Your task to perform on an android device: Open the calendar and show me this week's events? Image 0: 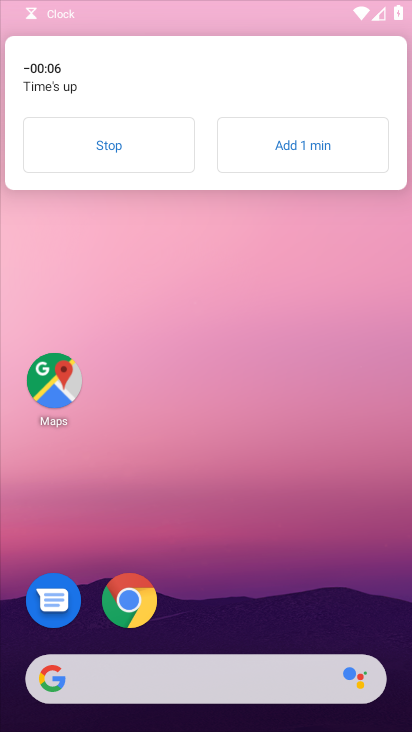
Step 0: click (126, 128)
Your task to perform on an android device: Open the calendar and show me this week's events? Image 1: 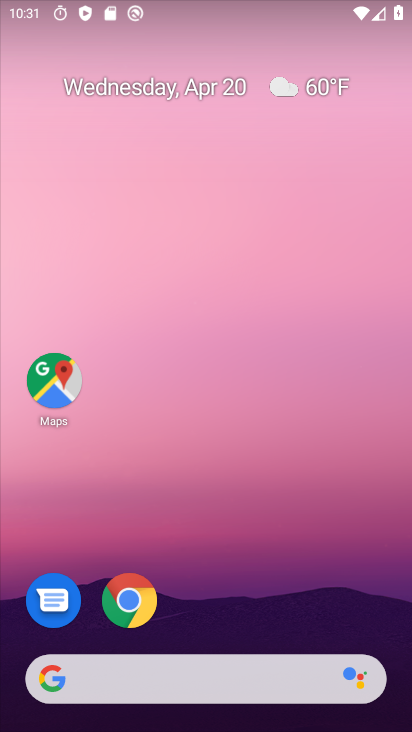
Step 1: click (178, 87)
Your task to perform on an android device: Open the calendar and show me this week's events? Image 2: 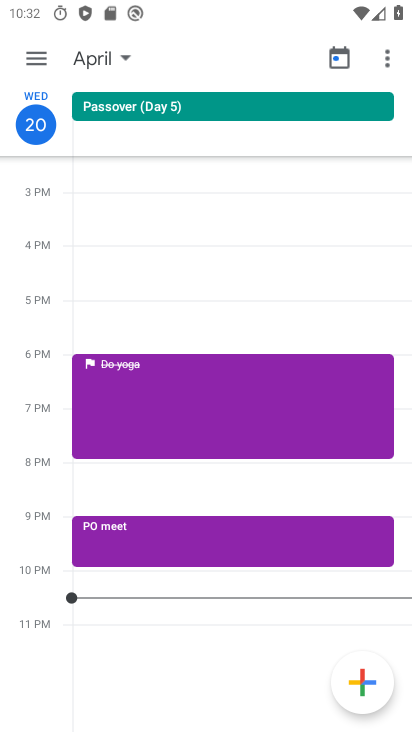
Step 2: click (34, 51)
Your task to perform on an android device: Open the calendar and show me this week's events? Image 3: 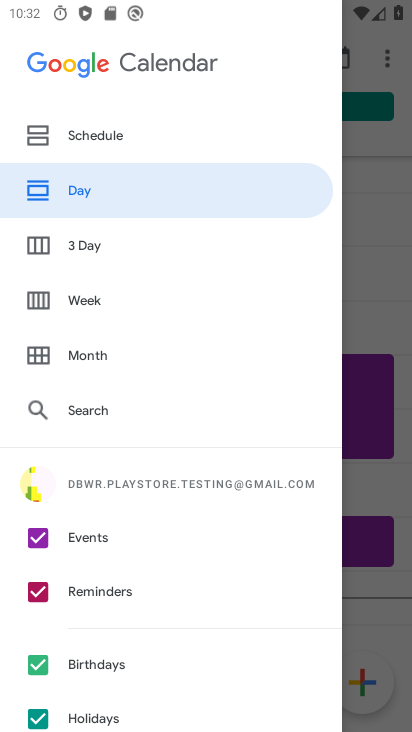
Step 3: click (40, 594)
Your task to perform on an android device: Open the calendar and show me this week's events? Image 4: 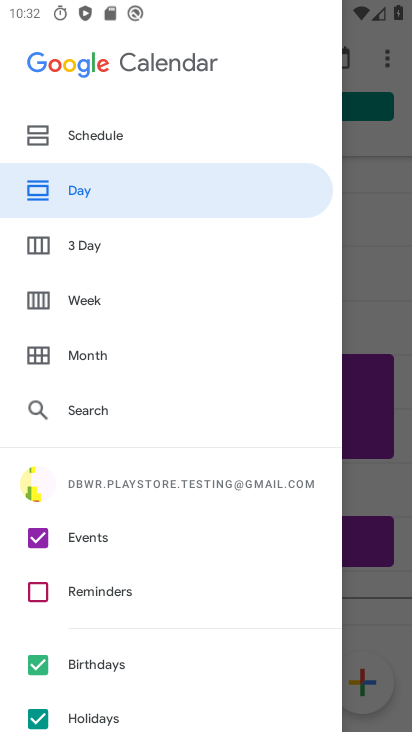
Step 4: click (45, 671)
Your task to perform on an android device: Open the calendar and show me this week's events? Image 5: 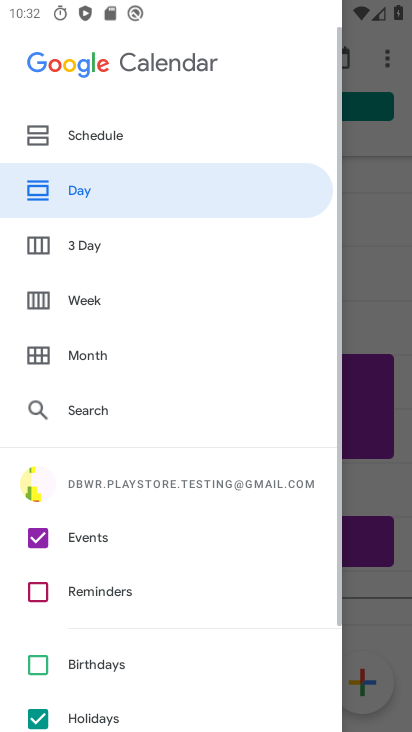
Step 5: click (39, 719)
Your task to perform on an android device: Open the calendar and show me this week's events? Image 6: 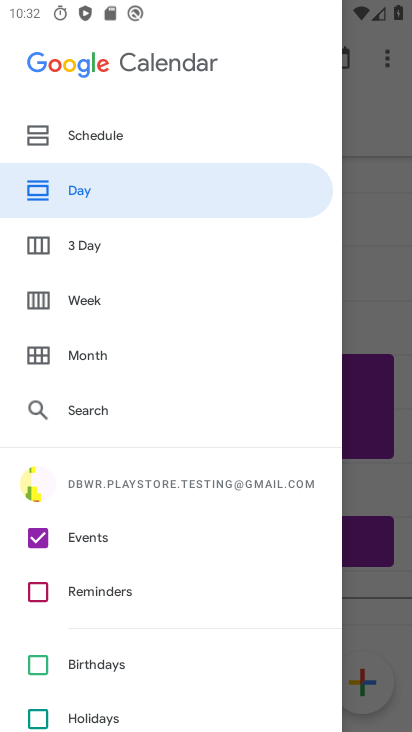
Step 6: click (382, 267)
Your task to perform on an android device: Open the calendar and show me this week's events? Image 7: 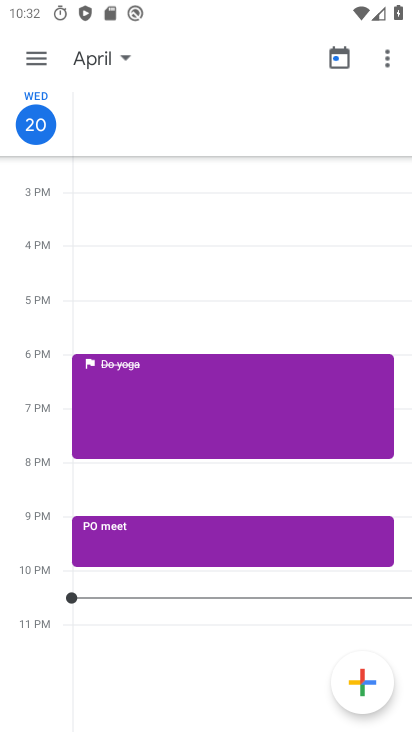
Step 7: click (353, 55)
Your task to perform on an android device: Open the calendar and show me this week's events? Image 8: 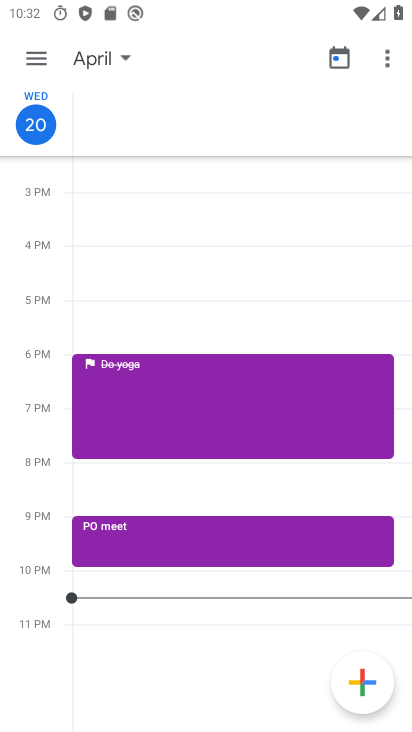
Step 8: click (335, 64)
Your task to perform on an android device: Open the calendar and show me this week's events? Image 9: 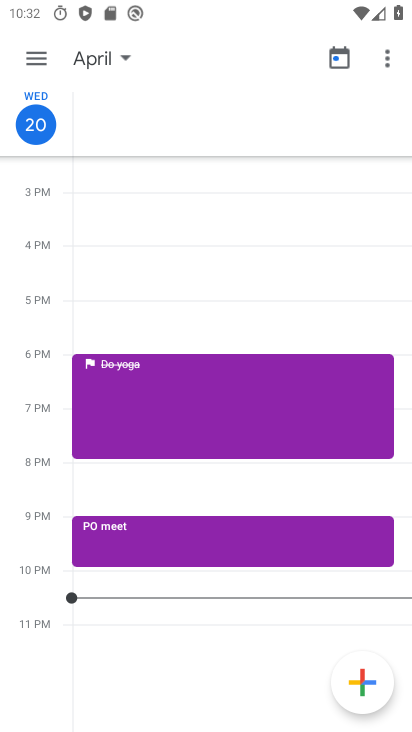
Step 9: click (97, 54)
Your task to perform on an android device: Open the calendar and show me this week's events? Image 10: 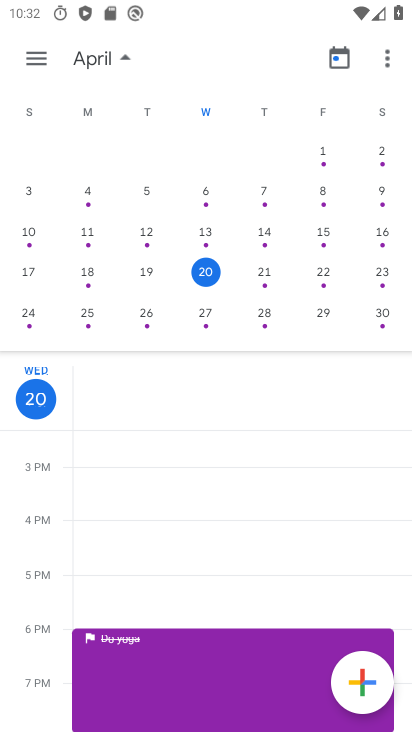
Step 10: click (199, 264)
Your task to perform on an android device: Open the calendar and show me this week's events? Image 11: 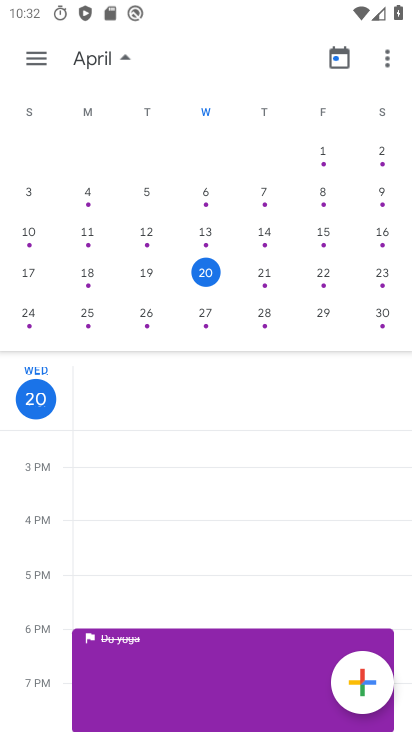
Step 11: click (263, 279)
Your task to perform on an android device: Open the calendar and show me this week's events? Image 12: 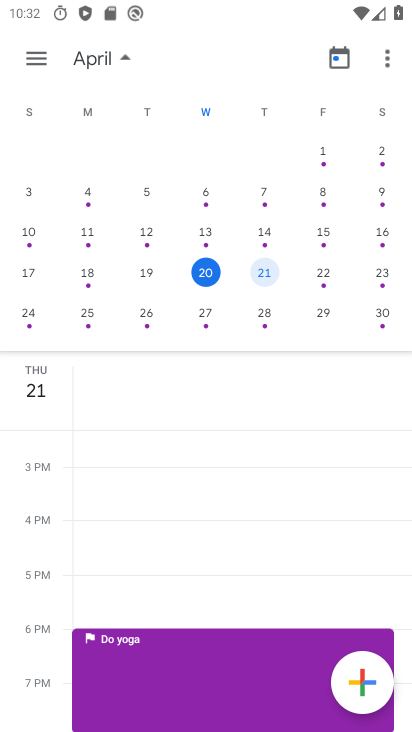
Step 12: drag from (225, 615) to (218, 165)
Your task to perform on an android device: Open the calendar and show me this week's events? Image 13: 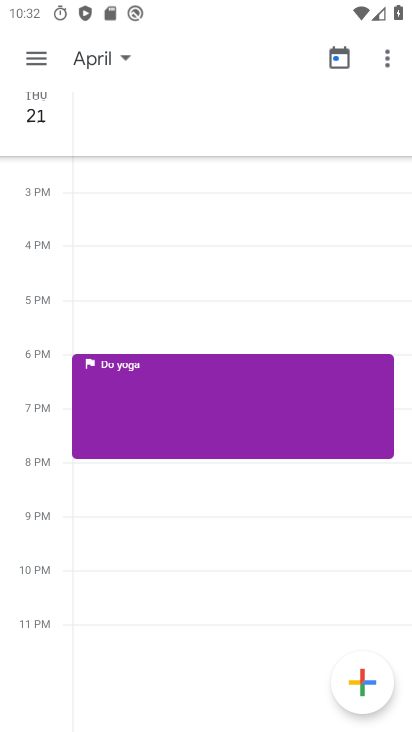
Step 13: click (38, 61)
Your task to perform on an android device: Open the calendar and show me this week's events? Image 14: 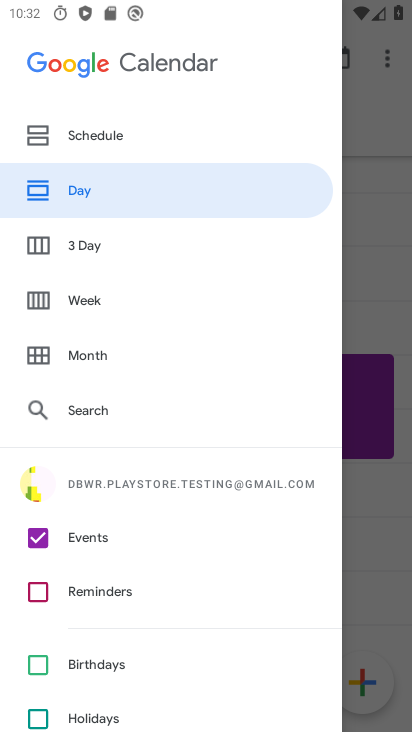
Step 14: click (132, 306)
Your task to perform on an android device: Open the calendar and show me this week's events? Image 15: 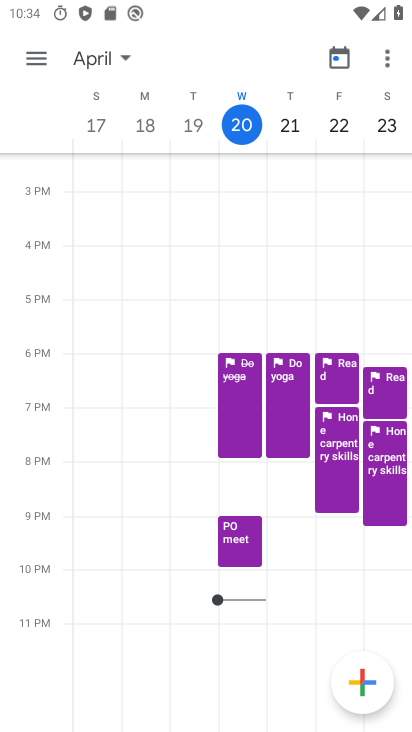
Step 15: task complete